Your task to perform on an android device: What's the weather today? Image 0: 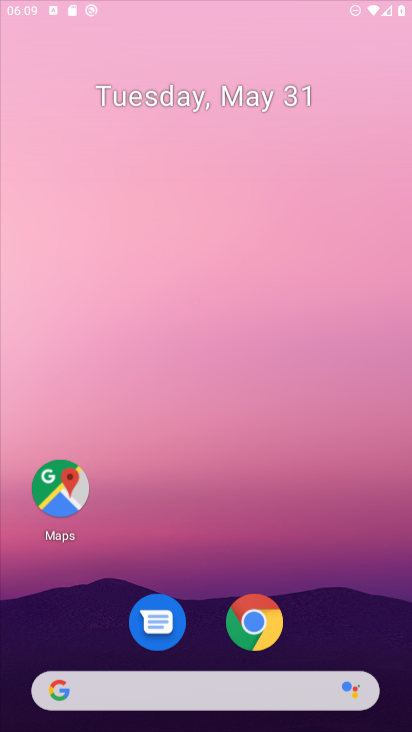
Step 0: click (304, 3)
Your task to perform on an android device: What's the weather today? Image 1: 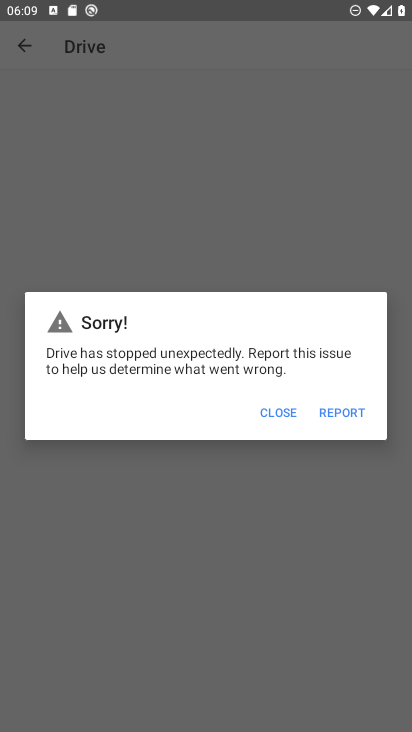
Step 1: press home button
Your task to perform on an android device: What's the weather today? Image 2: 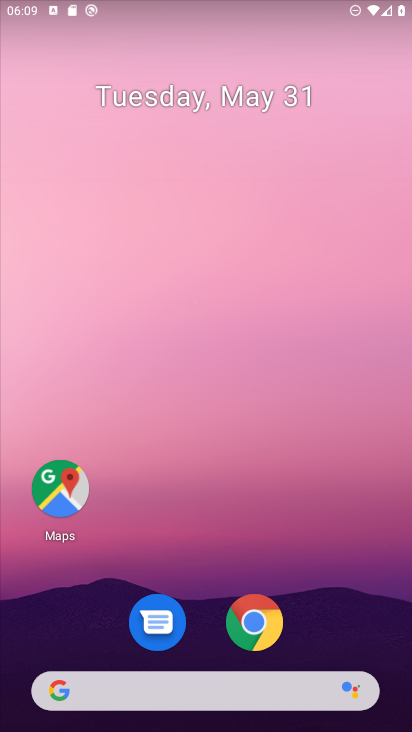
Step 2: drag from (265, 704) to (206, 11)
Your task to perform on an android device: What's the weather today? Image 3: 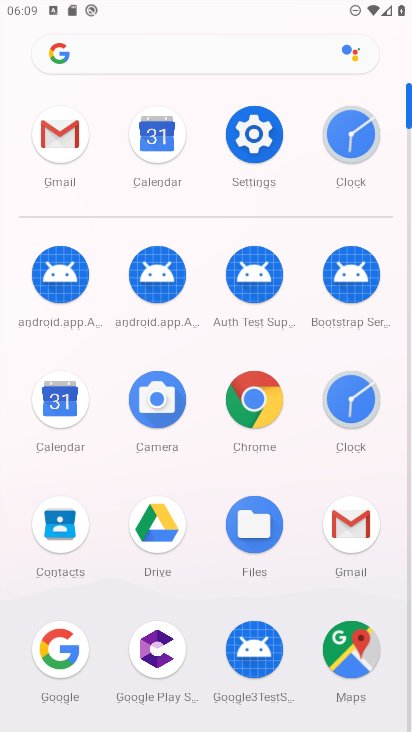
Step 3: press home button
Your task to perform on an android device: What's the weather today? Image 4: 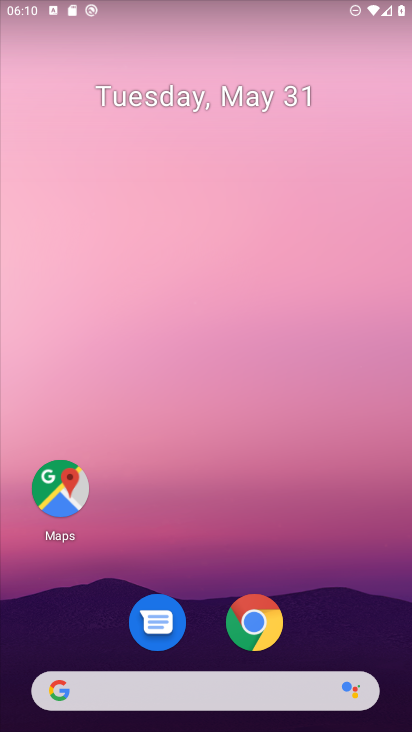
Step 4: drag from (48, 234) to (388, 227)
Your task to perform on an android device: What's the weather today? Image 5: 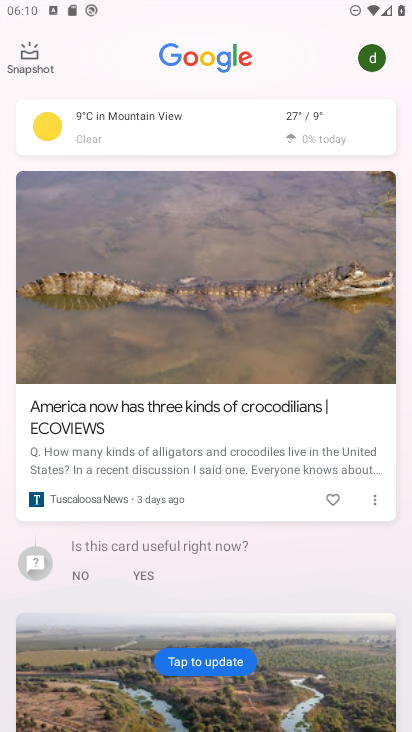
Step 5: click (169, 116)
Your task to perform on an android device: What's the weather today? Image 6: 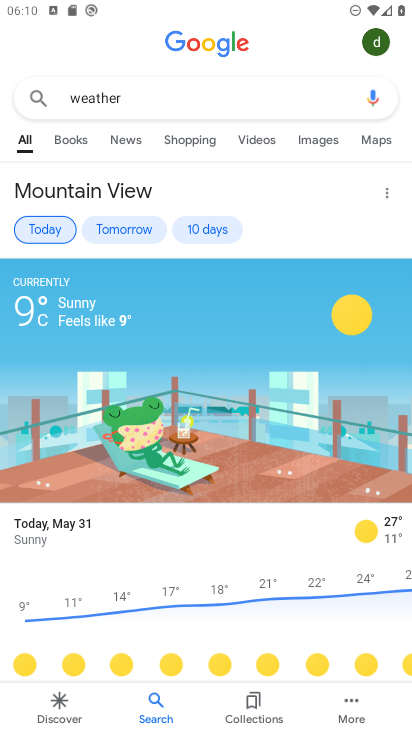
Step 6: task complete